Your task to perform on an android device: Go to Google maps Image 0: 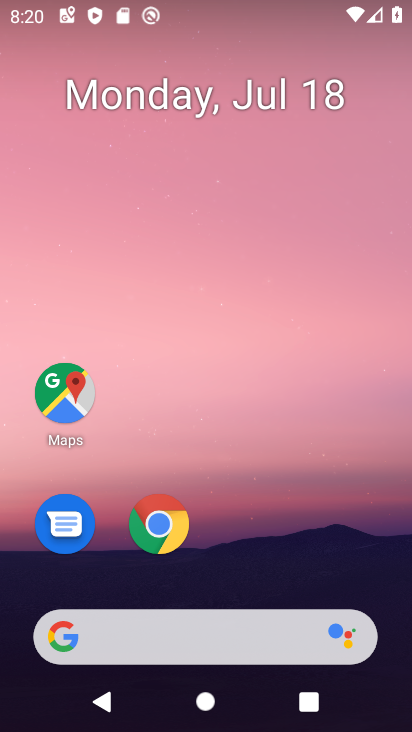
Step 0: click (59, 385)
Your task to perform on an android device: Go to Google maps Image 1: 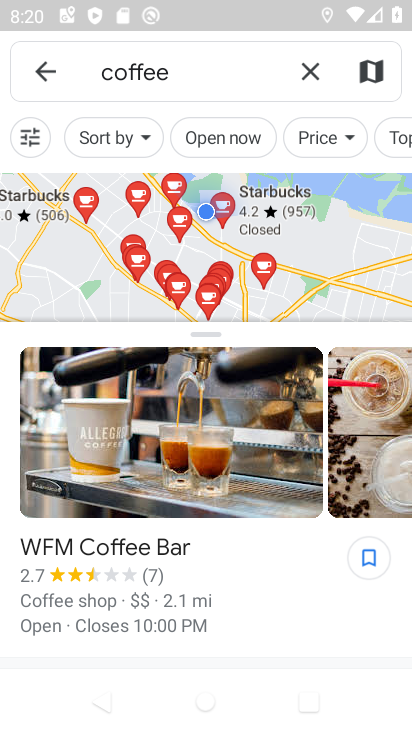
Step 1: click (308, 68)
Your task to perform on an android device: Go to Google maps Image 2: 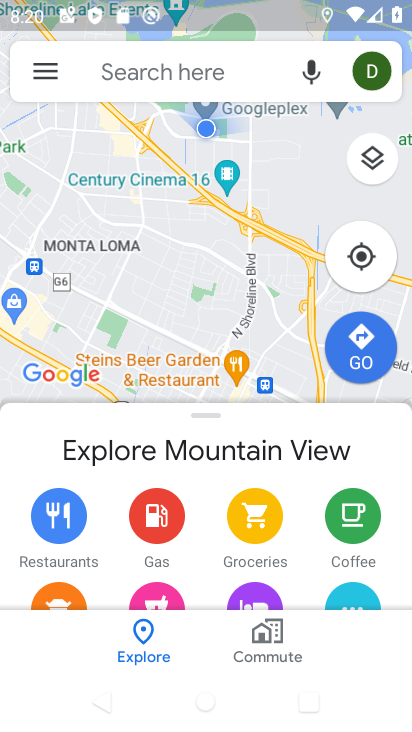
Step 2: task complete